Your task to perform on an android device: When is my next meeting? Image 0: 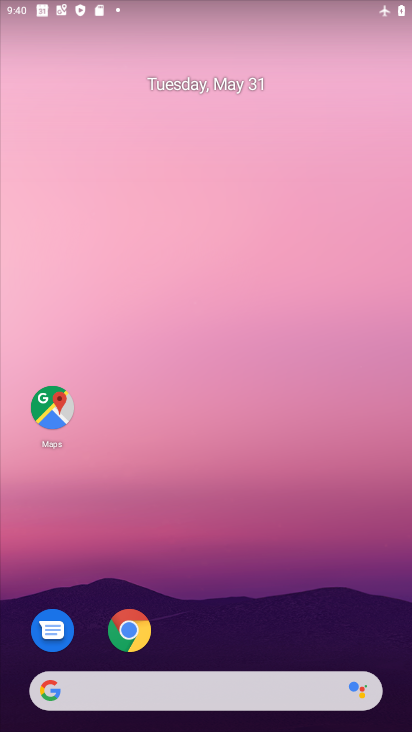
Step 0: drag from (285, 495) to (239, 226)
Your task to perform on an android device: When is my next meeting? Image 1: 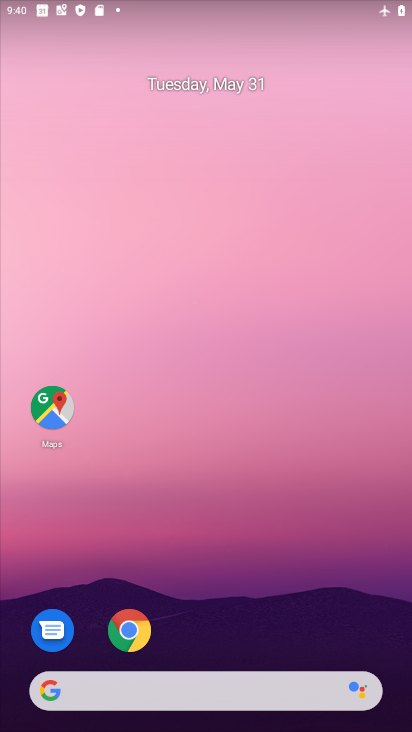
Step 1: drag from (168, 628) to (136, 216)
Your task to perform on an android device: When is my next meeting? Image 2: 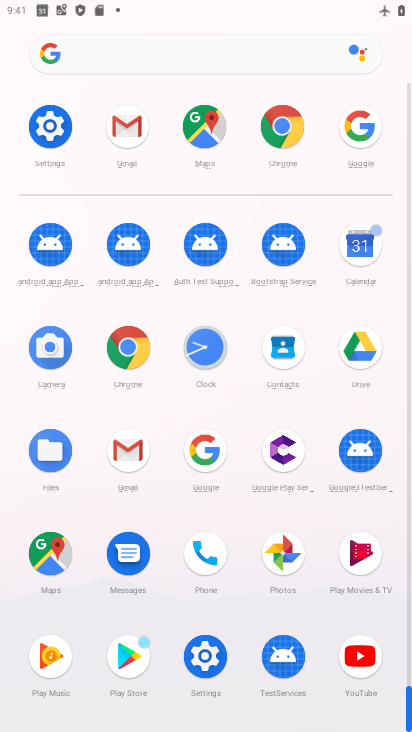
Step 2: click (353, 240)
Your task to perform on an android device: When is my next meeting? Image 3: 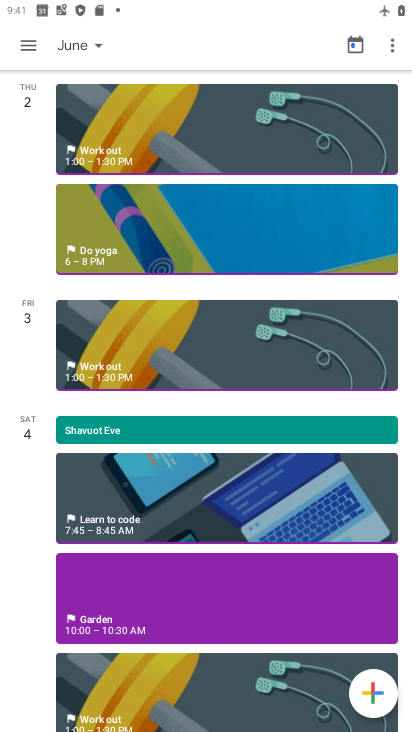
Step 3: task complete